Your task to perform on an android device: What's the weather going to be tomorrow? Image 0: 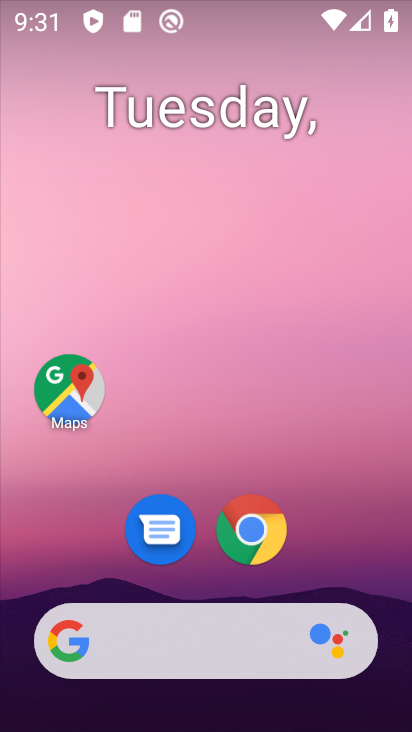
Step 0: drag from (369, 548) to (346, 0)
Your task to perform on an android device: What's the weather going to be tomorrow? Image 1: 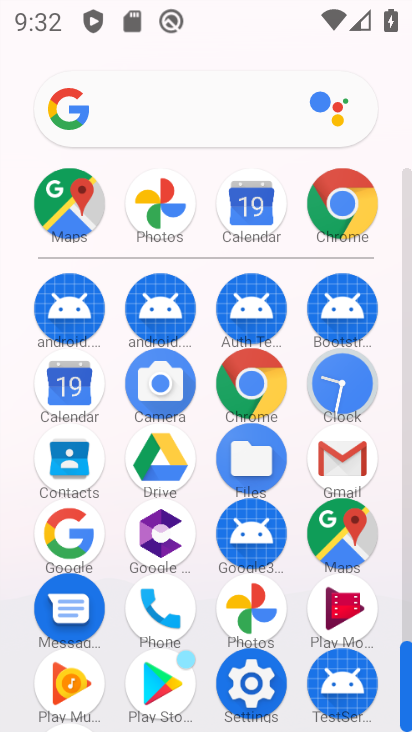
Step 1: click (261, 388)
Your task to perform on an android device: What's the weather going to be tomorrow? Image 2: 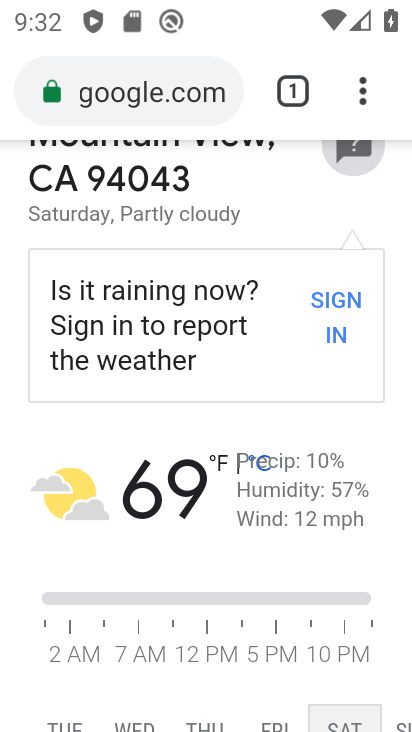
Step 2: click (201, 108)
Your task to perform on an android device: What's the weather going to be tomorrow? Image 3: 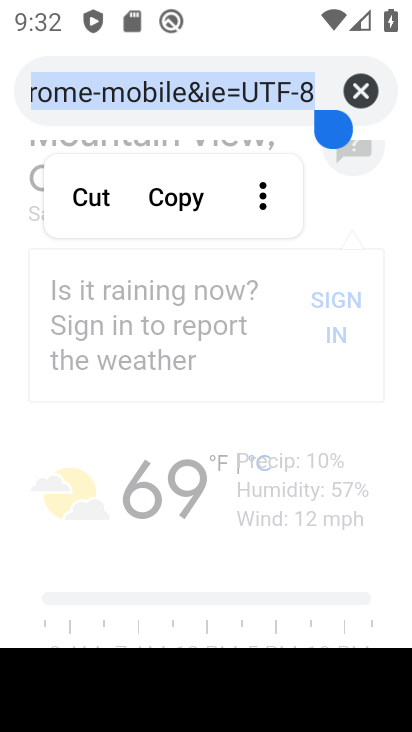
Step 3: click (350, 83)
Your task to perform on an android device: What's the weather going to be tomorrow? Image 4: 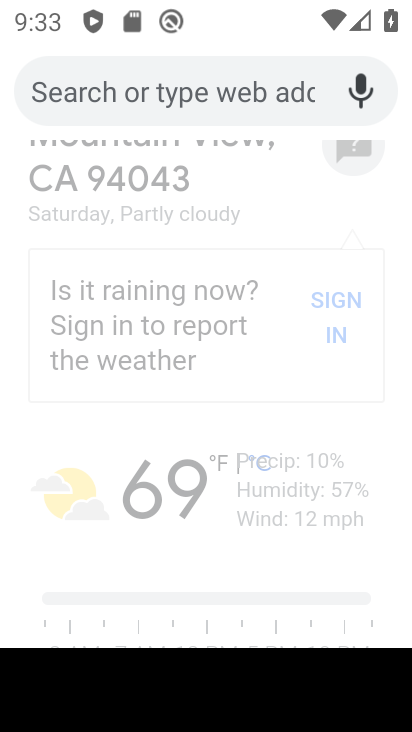
Step 4: type "weather tomorrow"
Your task to perform on an android device: What's the weather going to be tomorrow? Image 5: 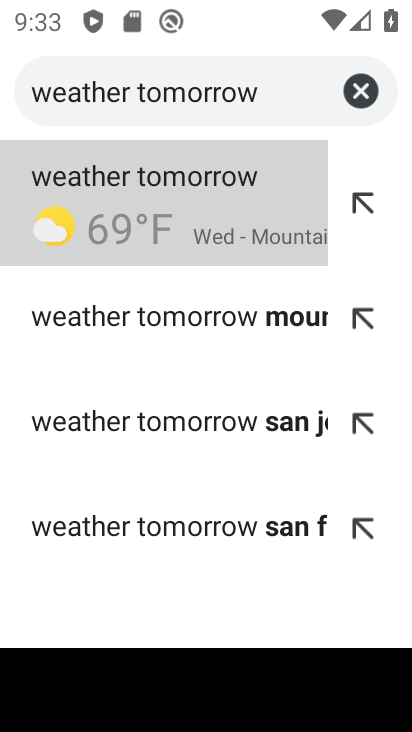
Step 5: click (195, 198)
Your task to perform on an android device: What's the weather going to be tomorrow? Image 6: 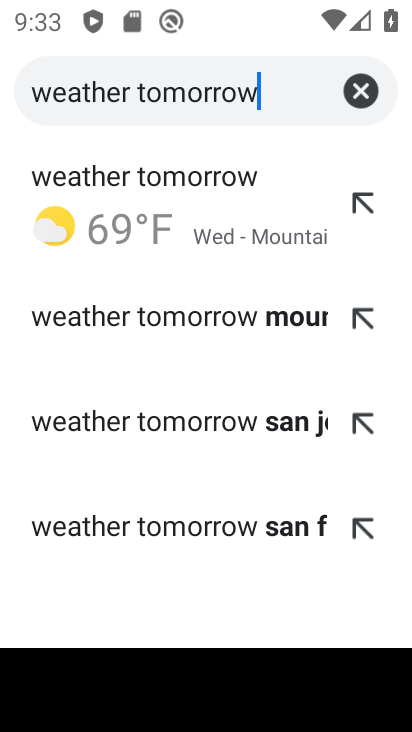
Step 6: click (204, 200)
Your task to perform on an android device: What's the weather going to be tomorrow? Image 7: 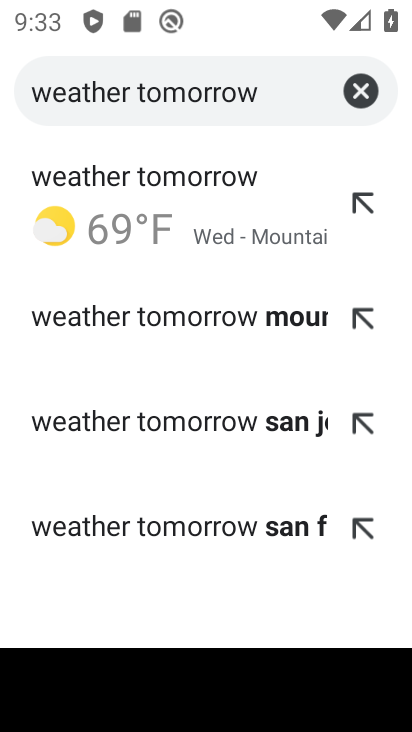
Step 7: click (225, 221)
Your task to perform on an android device: What's the weather going to be tomorrow? Image 8: 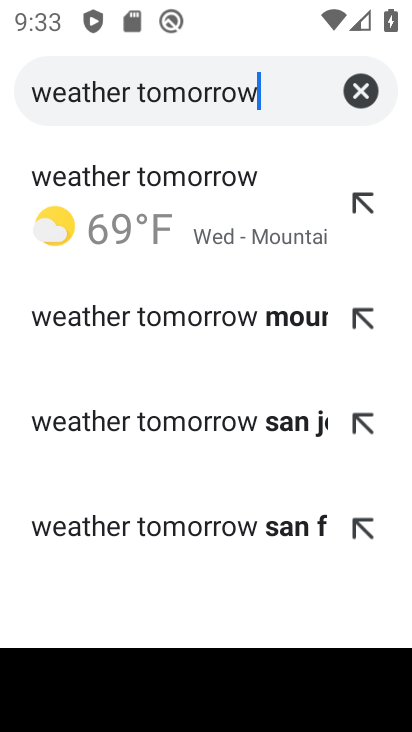
Step 8: click (254, 319)
Your task to perform on an android device: What's the weather going to be tomorrow? Image 9: 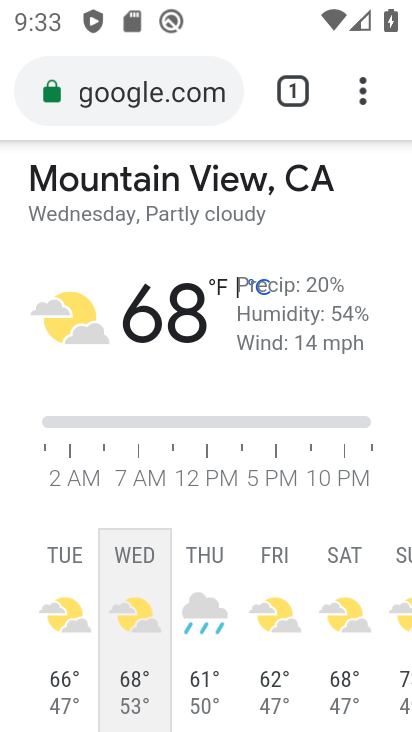
Step 9: task complete